Your task to perform on an android device: turn off wifi Image 0: 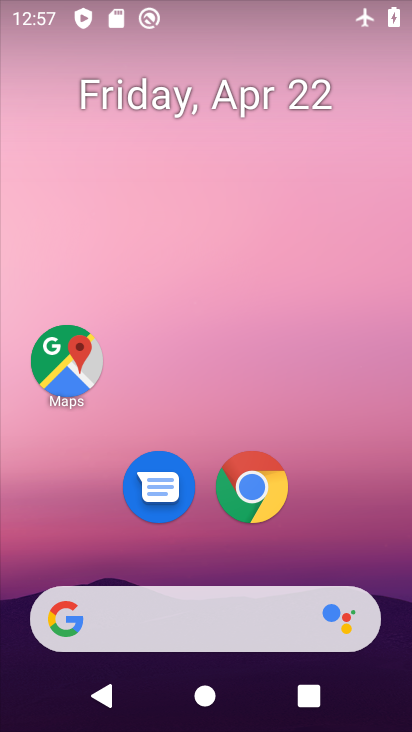
Step 0: drag from (194, 567) to (202, 145)
Your task to perform on an android device: turn off wifi Image 1: 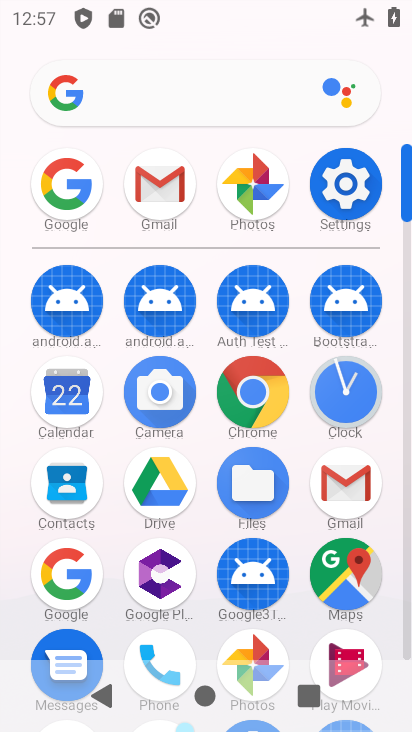
Step 1: click (348, 187)
Your task to perform on an android device: turn off wifi Image 2: 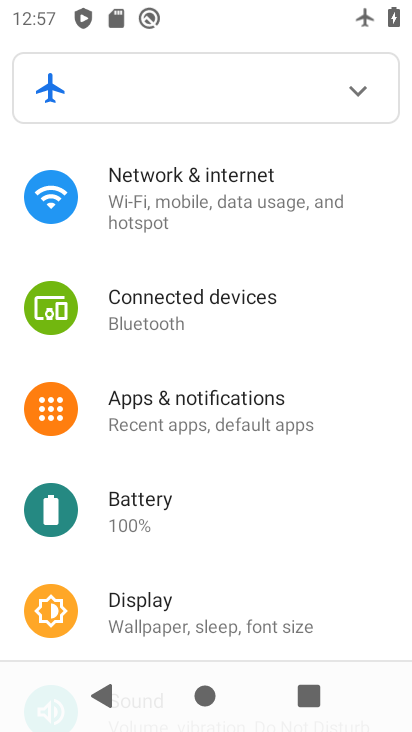
Step 2: click (194, 193)
Your task to perform on an android device: turn off wifi Image 3: 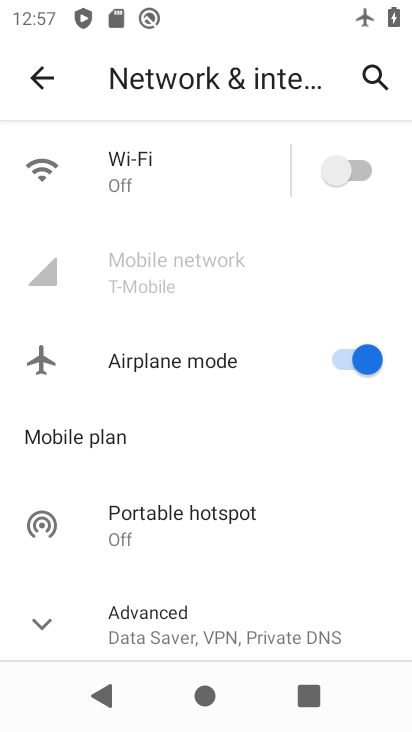
Step 3: task complete